Your task to perform on an android device: Open Amazon Image 0: 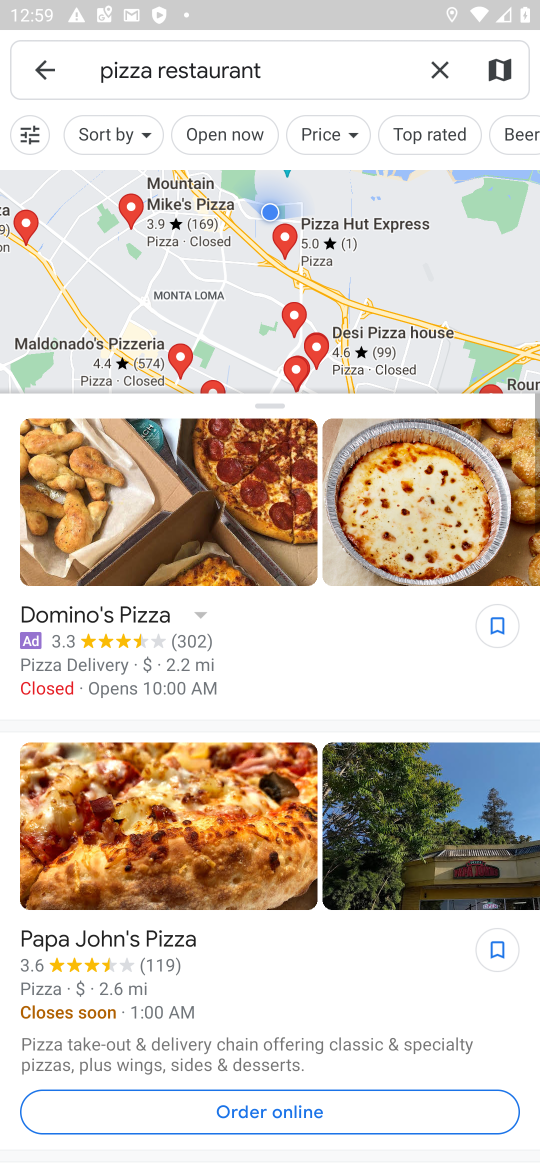
Step 0: press home button
Your task to perform on an android device: Open Amazon Image 1: 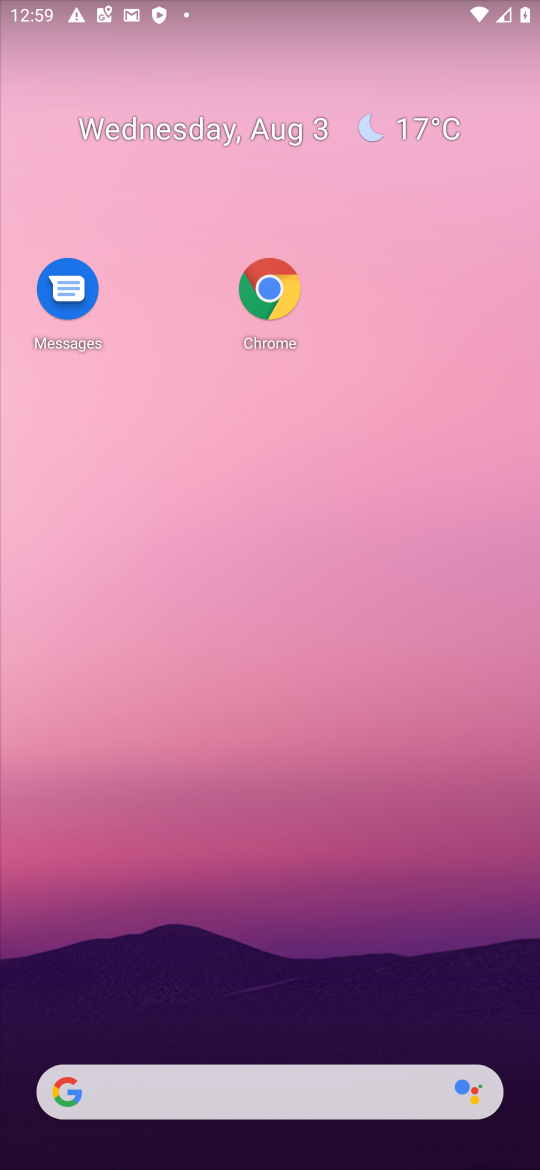
Step 1: click (280, 291)
Your task to perform on an android device: Open Amazon Image 2: 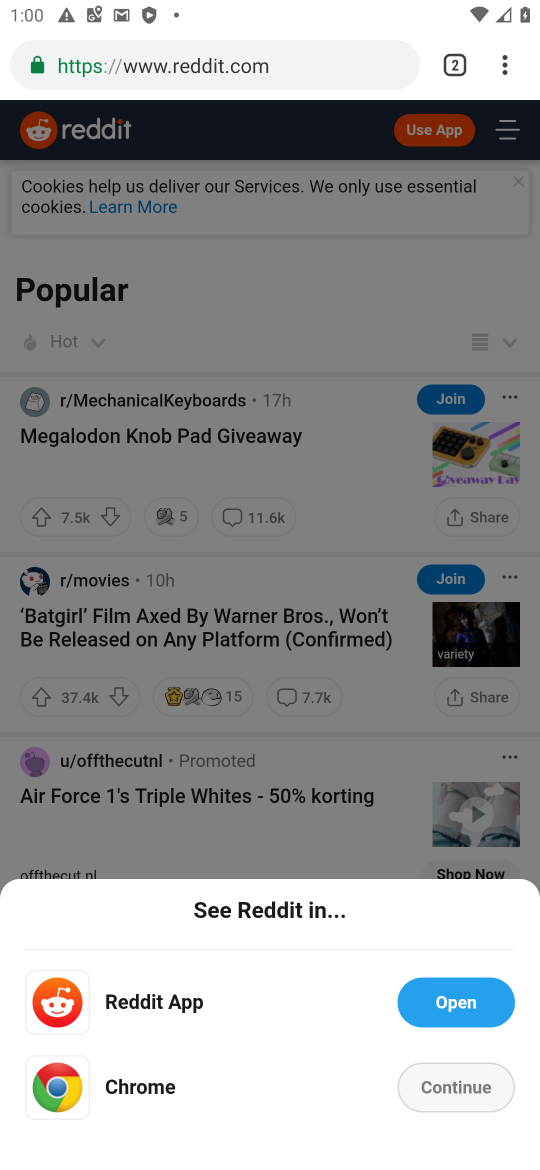
Step 2: click (446, 57)
Your task to perform on an android device: Open Amazon Image 3: 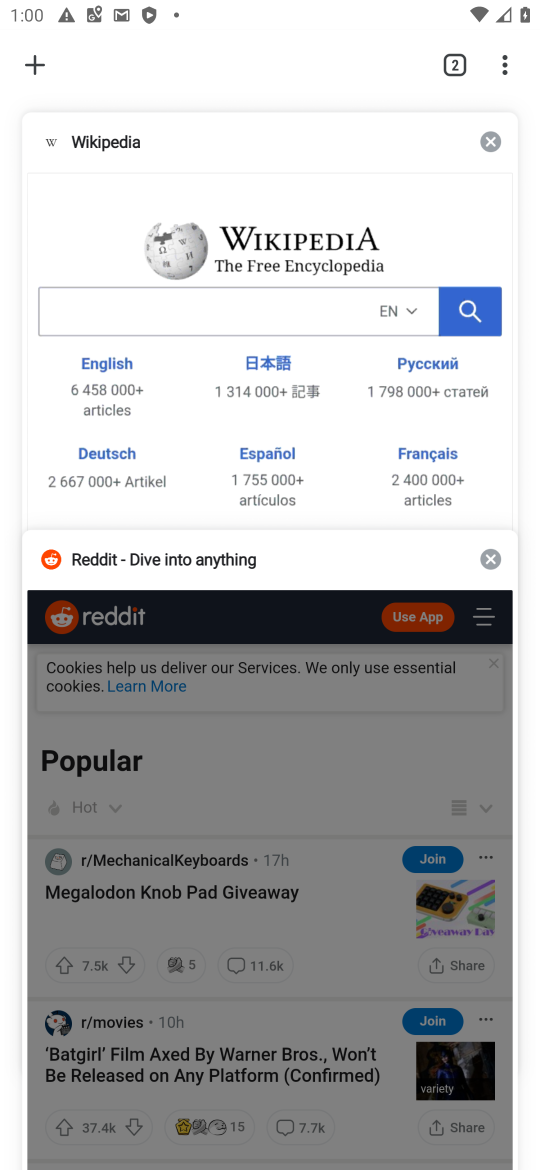
Step 3: click (369, 78)
Your task to perform on an android device: Open Amazon Image 4: 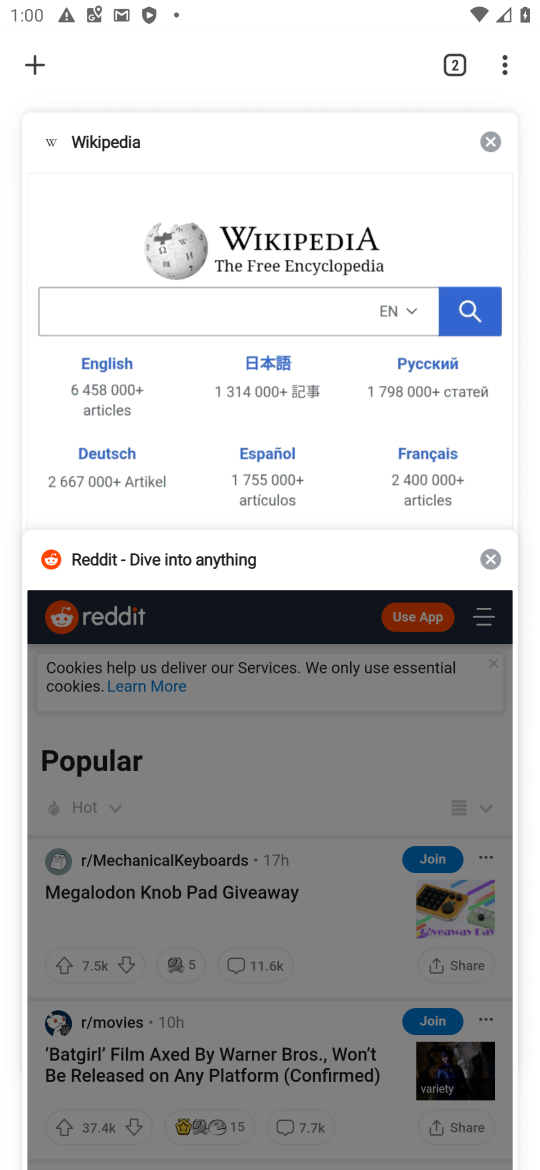
Step 4: click (369, 78)
Your task to perform on an android device: Open Amazon Image 5: 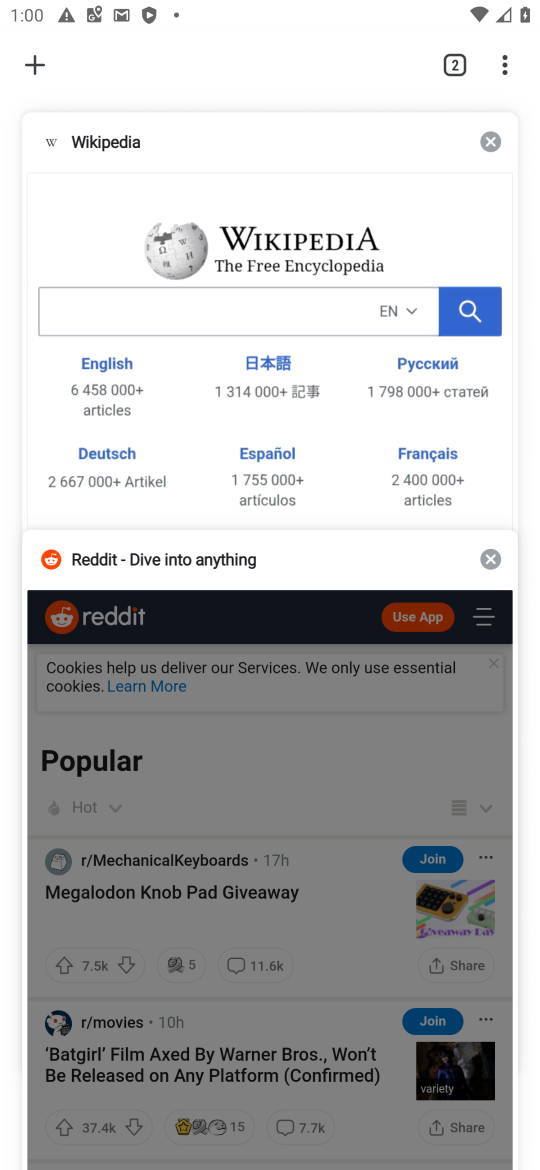
Step 5: click (41, 88)
Your task to perform on an android device: Open Amazon Image 6: 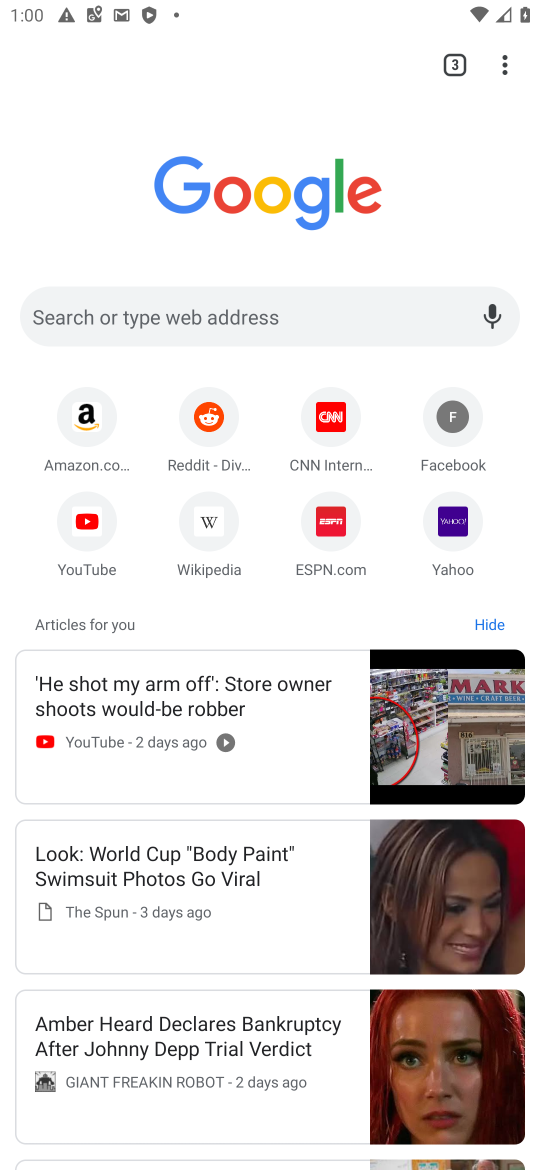
Step 6: click (96, 423)
Your task to perform on an android device: Open Amazon Image 7: 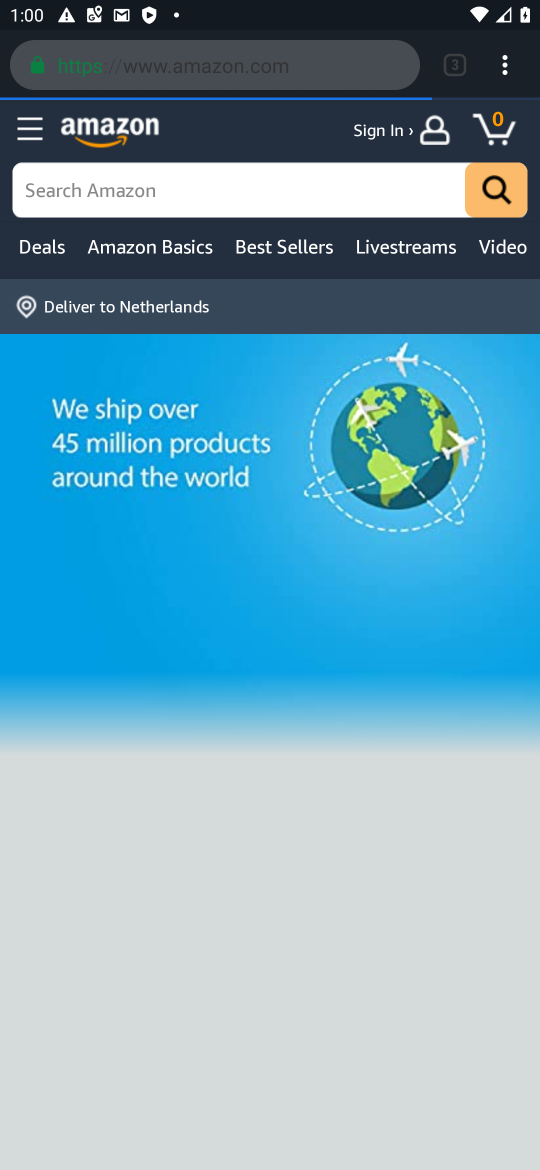
Step 7: task complete